Your task to perform on an android device: Open eBay Image 0: 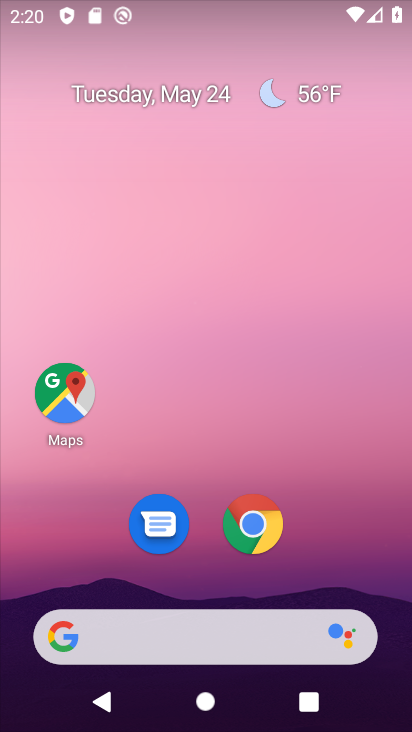
Step 0: click (236, 636)
Your task to perform on an android device: Open eBay Image 1: 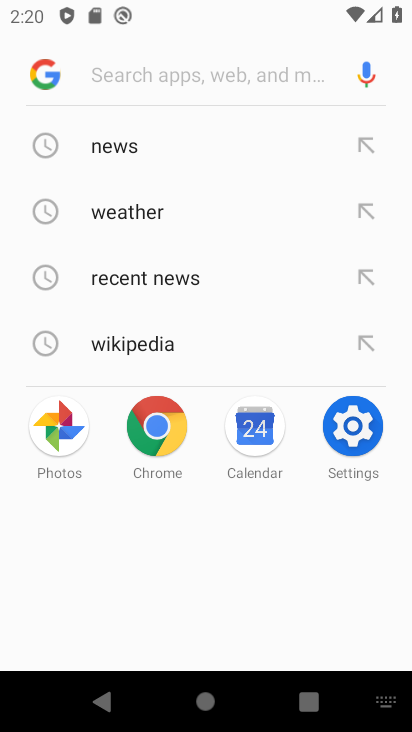
Step 1: type "ebay"
Your task to perform on an android device: Open eBay Image 2: 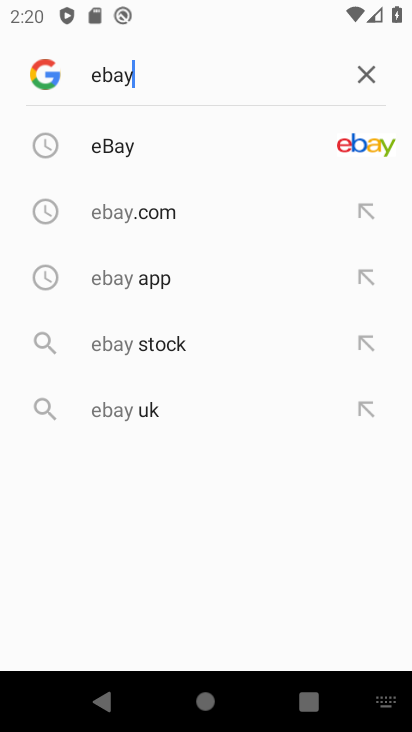
Step 2: click (122, 147)
Your task to perform on an android device: Open eBay Image 3: 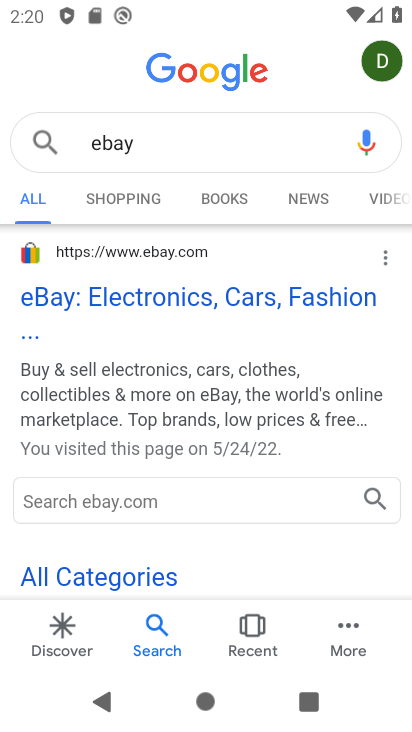
Step 3: click (63, 303)
Your task to perform on an android device: Open eBay Image 4: 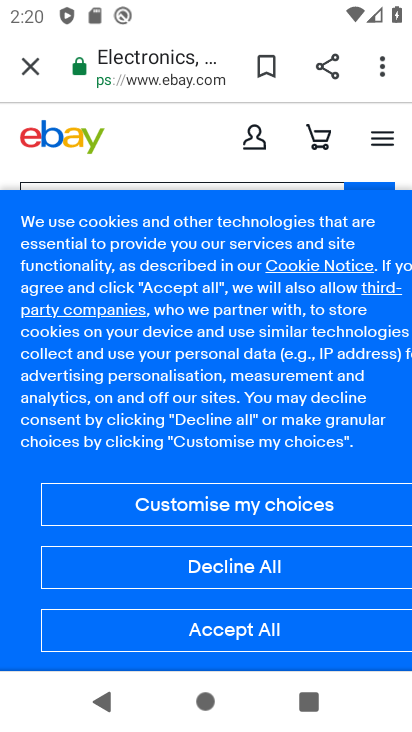
Step 4: task complete